Your task to perform on an android device: delete browsing data in the chrome app Image 0: 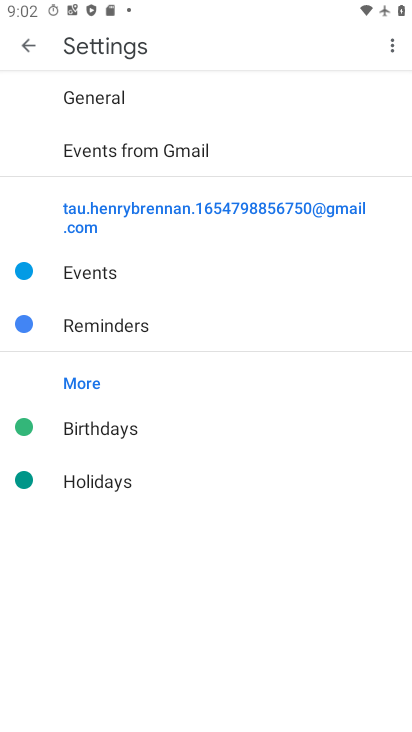
Step 0: press home button
Your task to perform on an android device: delete browsing data in the chrome app Image 1: 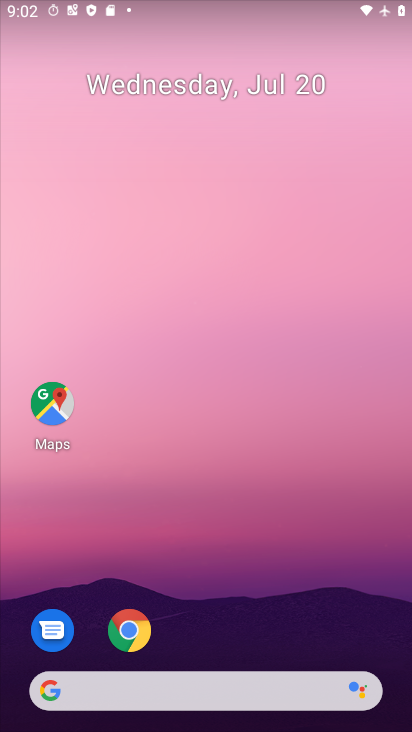
Step 1: drag from (230, 642) to (287, 9)
Your task to perform on an android device: delete browsing data in the chrome app Image 2: 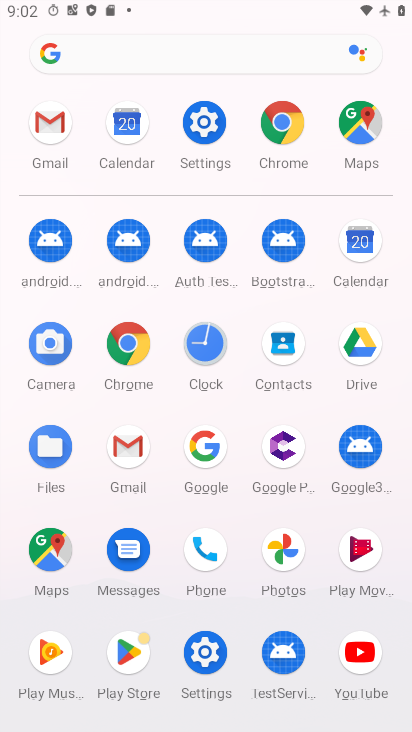
Step 2: click (132, 369)
Your task to perform on an android device: delete browsing data in the chrome app Image 3: 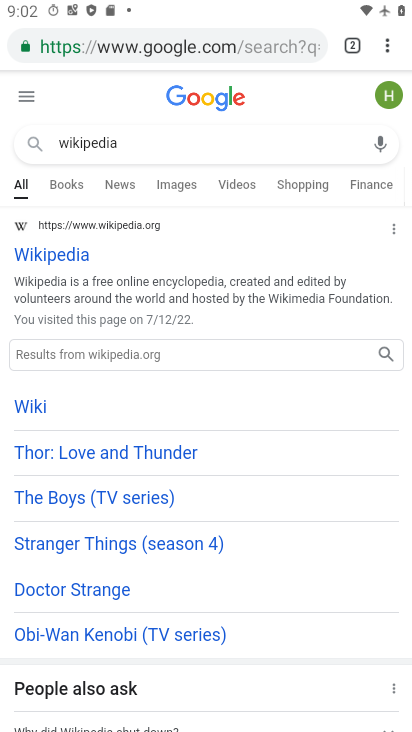
Step 3: click (389, 51)
Your task to perform on an android device: delete browsing data in the chrome app Image 4: 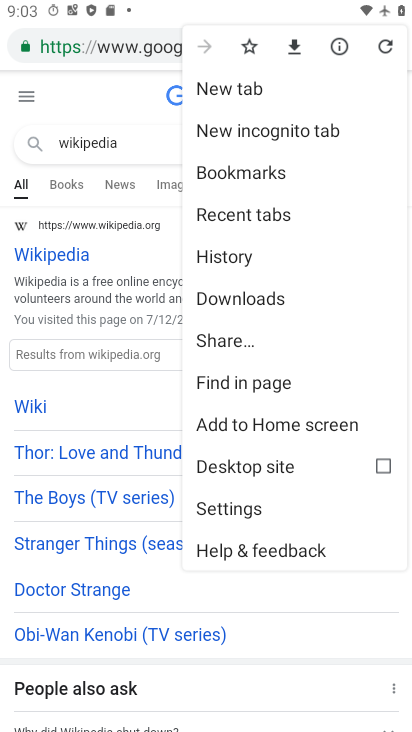
Step 4: click (221, 260)
Your task to perform on an android device: delete browsing data in the chrome app Image 5: 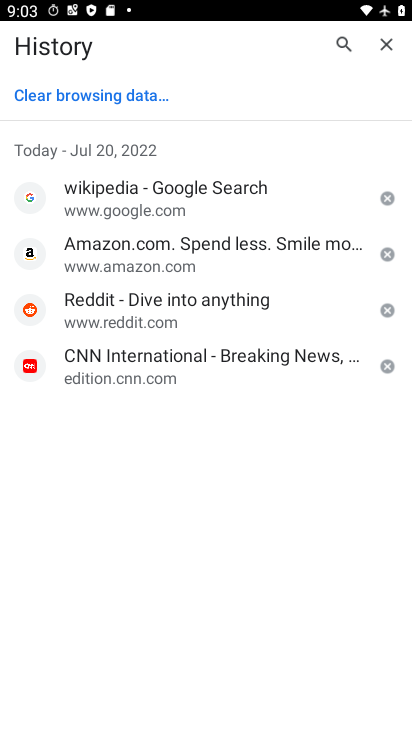
Step 5: click (94, 88)
Your task to perform on an android device: delete browsing data in the chrome app Image 6: 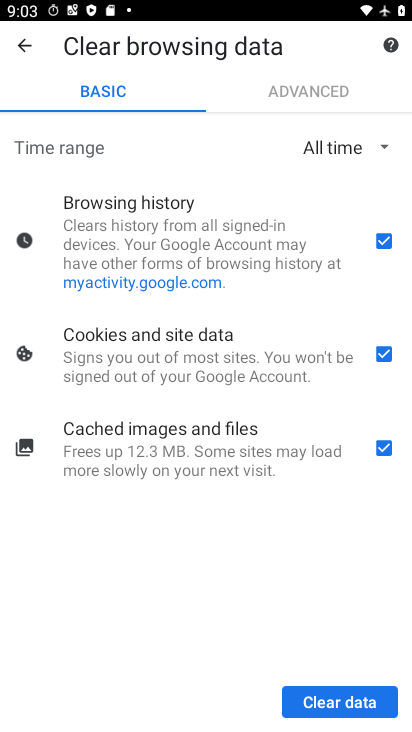
Step 6: click (390, 444)
Your task to perform on an android device: delete browsing data in the chrome app Image 7: 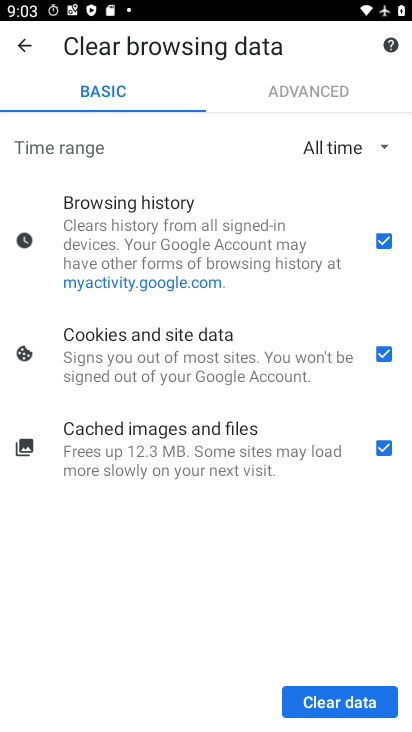
Step 7: click (384, 368)
Your task to perform on an android device: delete browsing data in the chrome app Image 8: 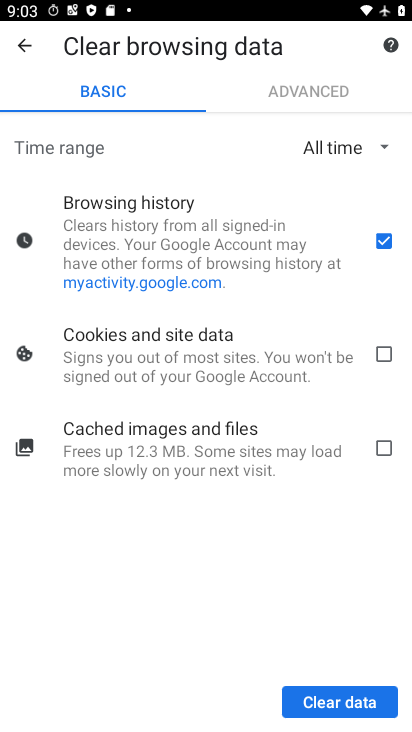
Step 8: click (355, 696)
Your task to perform on an android device: delete browsing data in the chrome app Image 9: 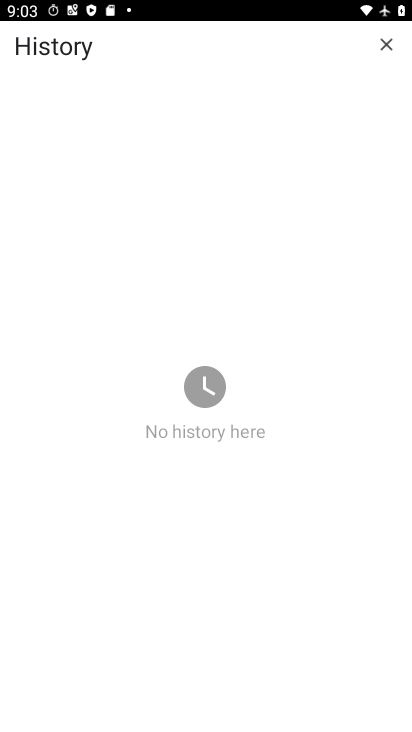
Step 9: task complete